Your task to perform on an android device: turn on wifi Image 0: 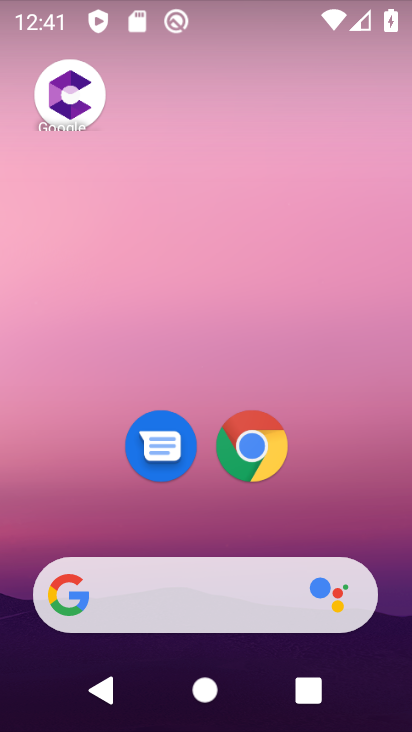
Step 0: drag from (96, 553) to (168, 213)
Your task to perform on an android device: turn on wifi Image 1: 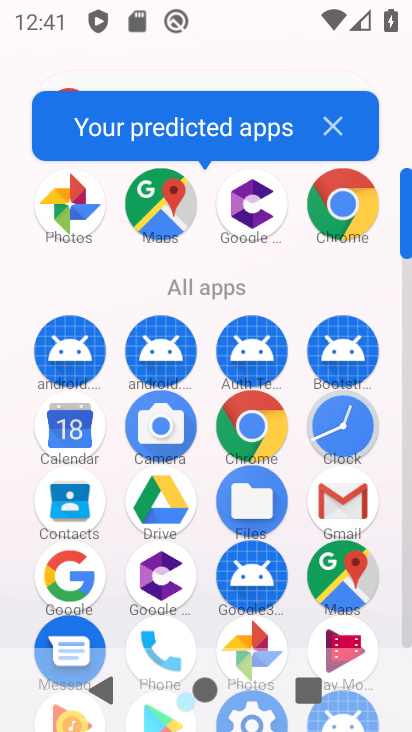
Step 1: drag from (143, 654) to (212, 457)
Your task to perform on an android device: turn on wifi Image 2: 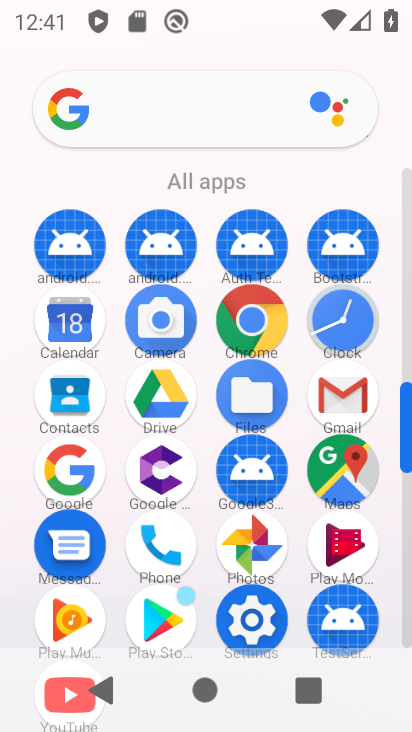
Step 2: click (259, 634)
Your task to perform on an android device: turn on wifi Image 3: 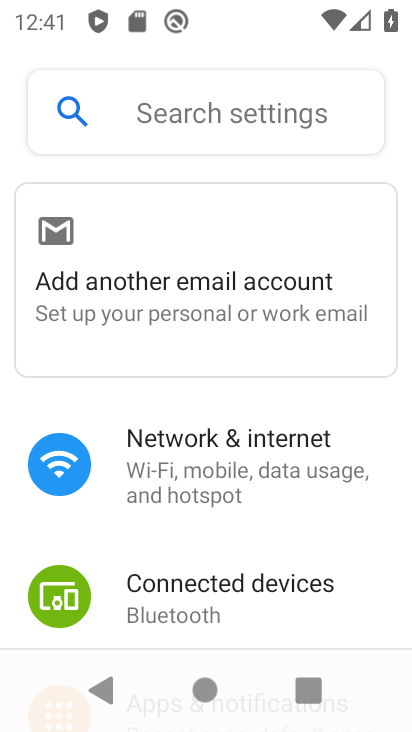
Step 3: click (239, 503)
Your task to perform on an android device: turn on wifi Image 4: 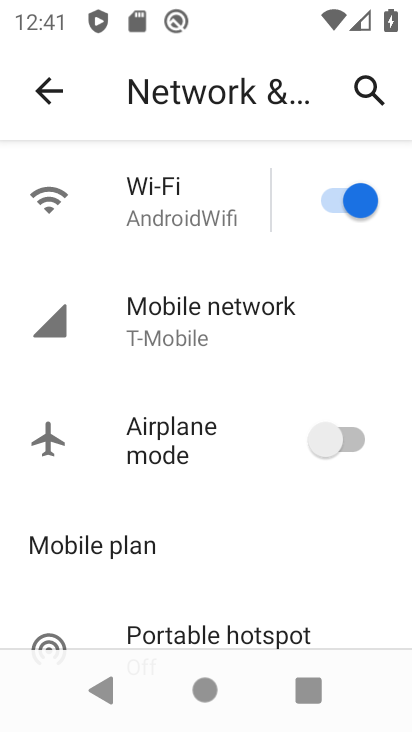
Step 4: task complete